Your task to perform on an android device: Open Google Maps Image 0: 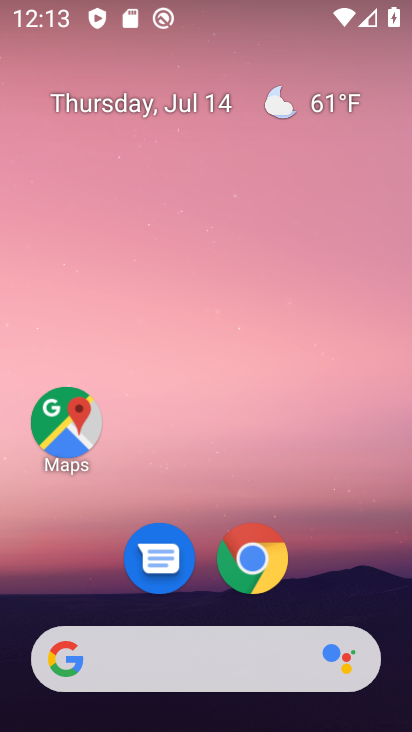
Step 0: click (55, 424)
Your task to perform on an android device: Open Google Maps Image 1: 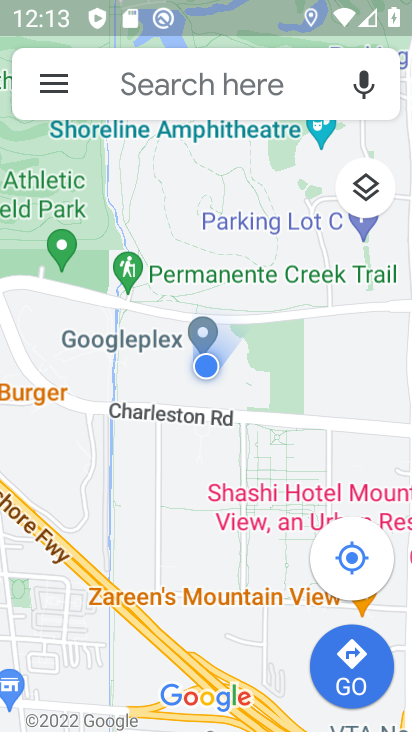
Step 1: task complete